Your task to perform on an android device: empty trash in google photos Image 0: 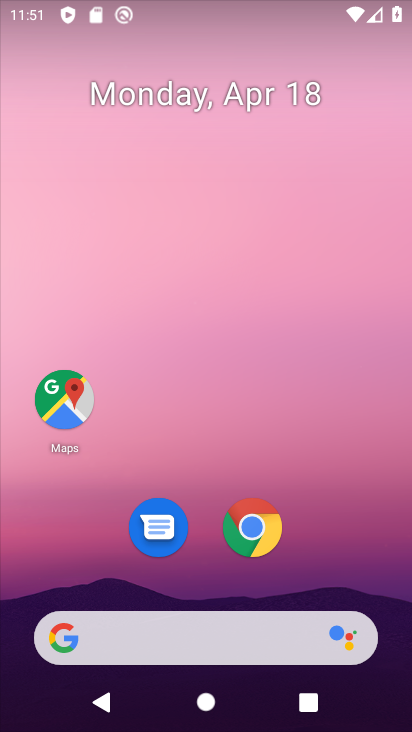
Step 0: drag from (355, 577) to (374, 56)
Your task to perform on an android device: empty trash in google photos Image 1: 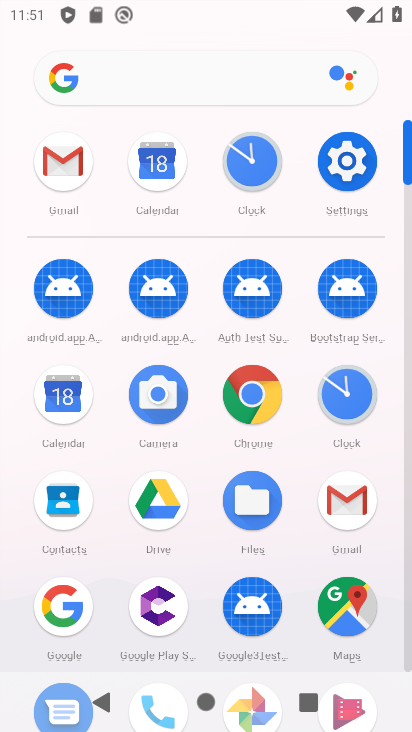
Step 1: drag from (295, 634) to (331, 414)
Your task to perform on an android device: empty trash in google photos Image 2: 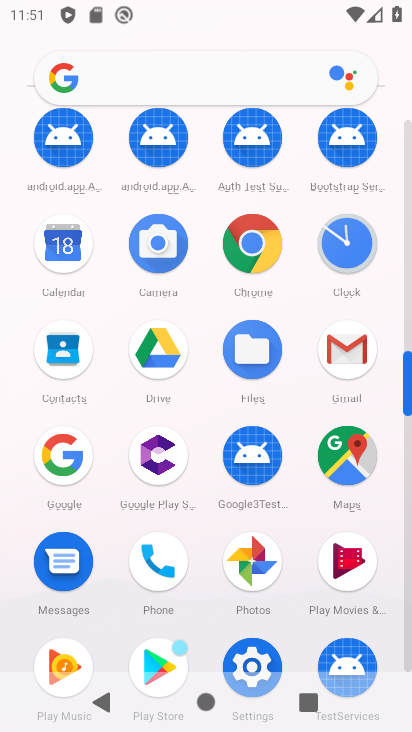
Step 2: click (238, 557)
Your task to perform on an android device: empty trash in google photos Image 3: 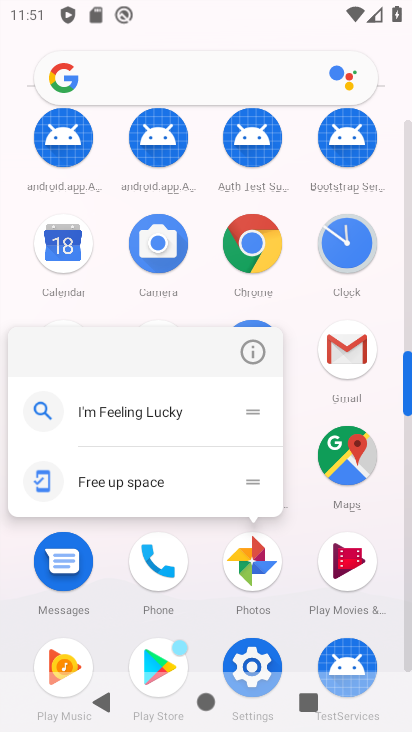
Step 3: click (238, 557)
Your task to perform on an android device: empty trash in google photos Image 4: 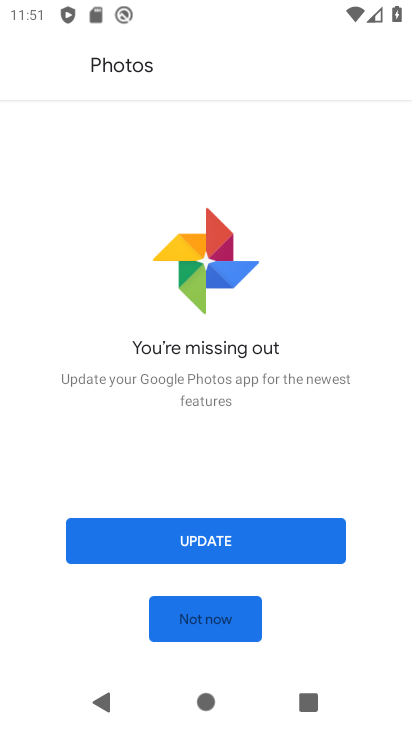
Step 4: click (230, 535)
Your task to perform on an android device: empty trash in google photos Image 5: 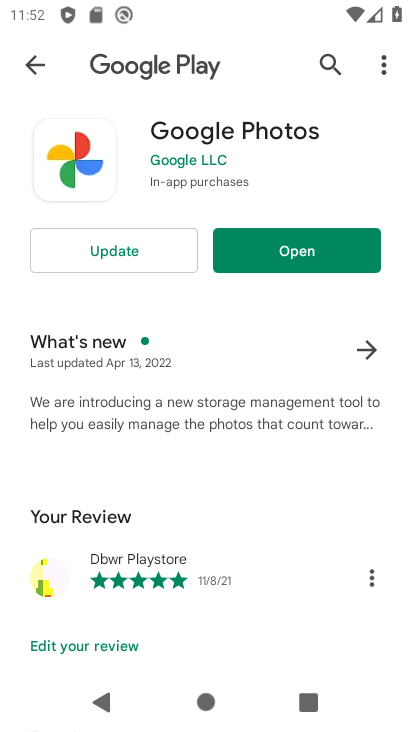
Step 5: click (132, 246)
Your task to perform on an android device: empty trash in google photos Image 6: 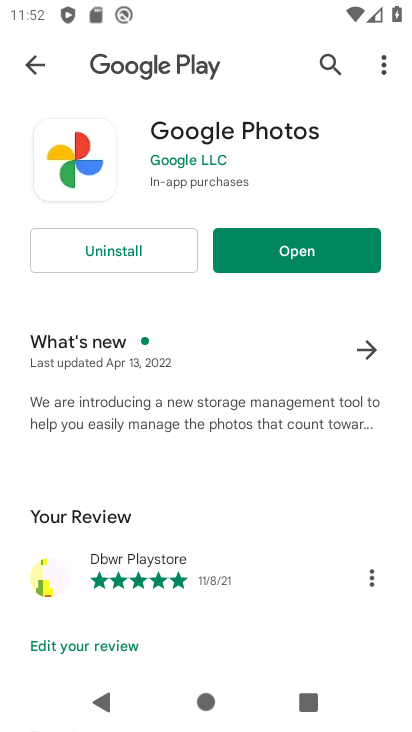
Step 6: click (269, 246)
Your task to perform on an android device: empty trash in google photos Image 7: 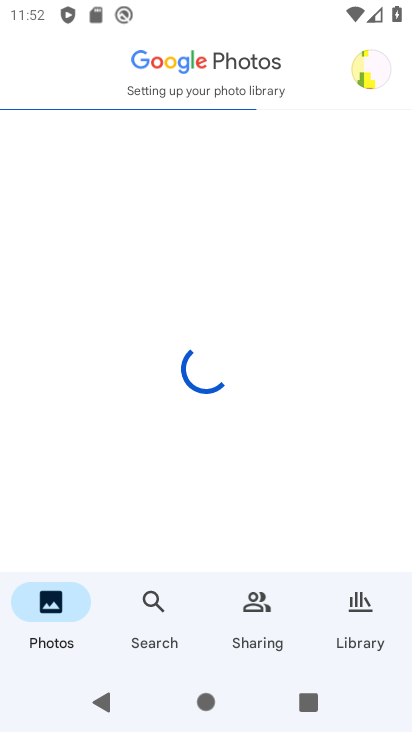
Step 7: click (373, 623)
Your task to perform on an android device: empty trash in google photos Image 8: 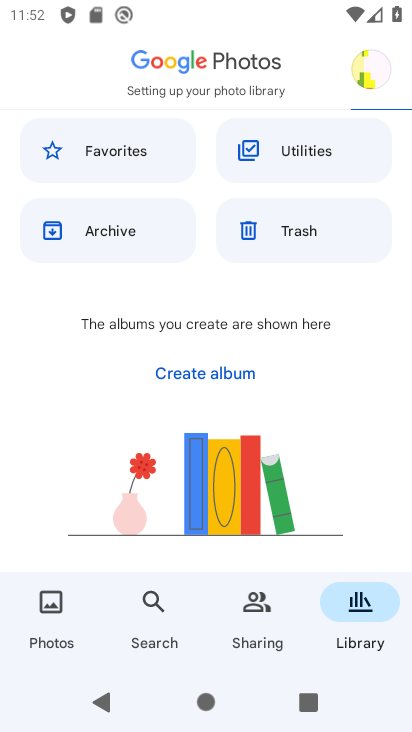
Step 8: click (312, 230)
Your task to perform on an android device: empty trash in google photos Image 9: 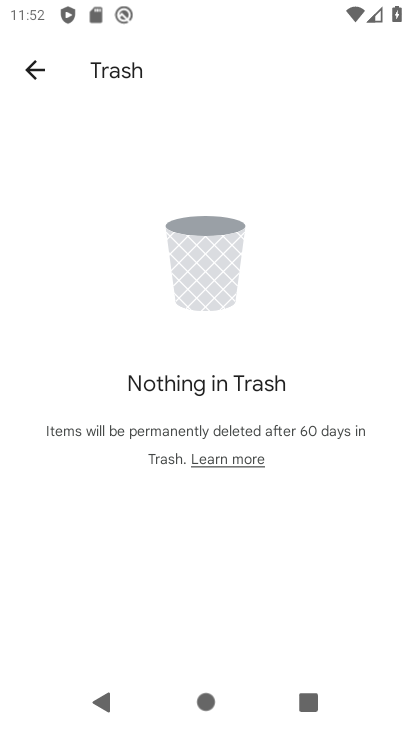
Step 9: task complete